Your task to perform on an android device: change text size in settings app Image 0: 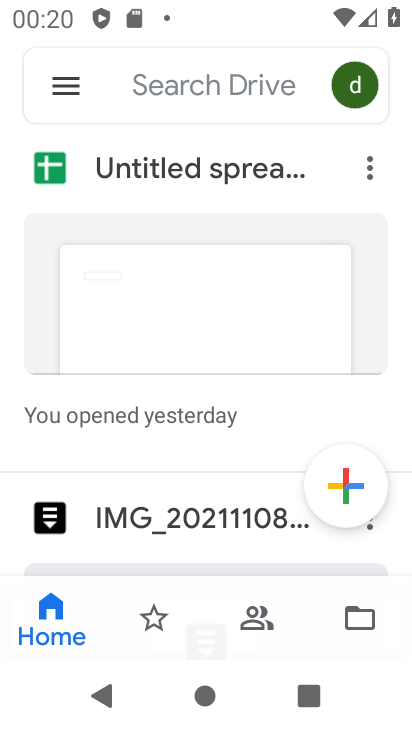
Step 0: press home button
Your task to perform on an android device: change text size in settings app Image 1: 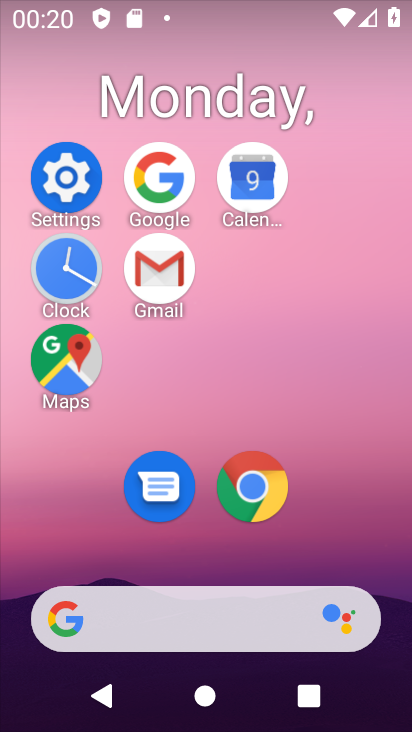
Step 1: click (71, 179)
Your task to perform on an android device: change text size in settings app Image 2: 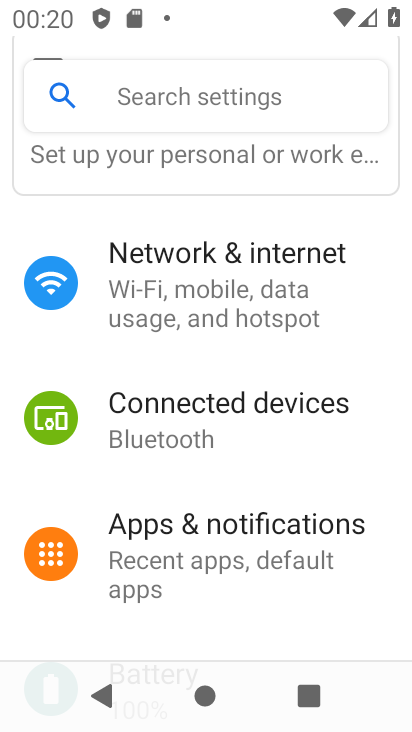
Step 2: drag from (266, 622) to (306, 263)
Your task to perform on an android device: change text size in settings app Image 3: 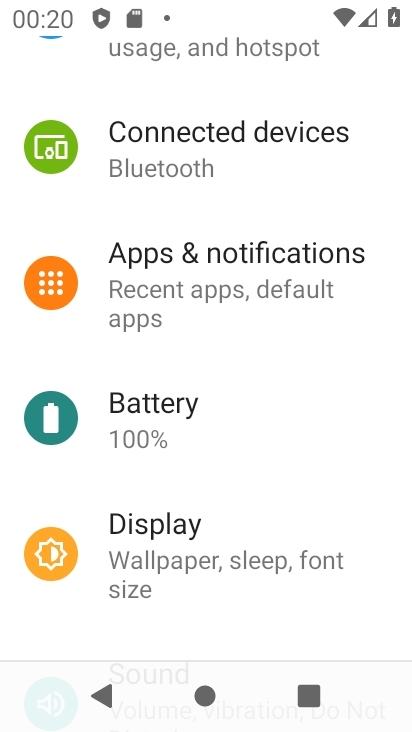
Step 3: click (277, 528)
Your task to perform on an android device: change text size in settings app Image 4: 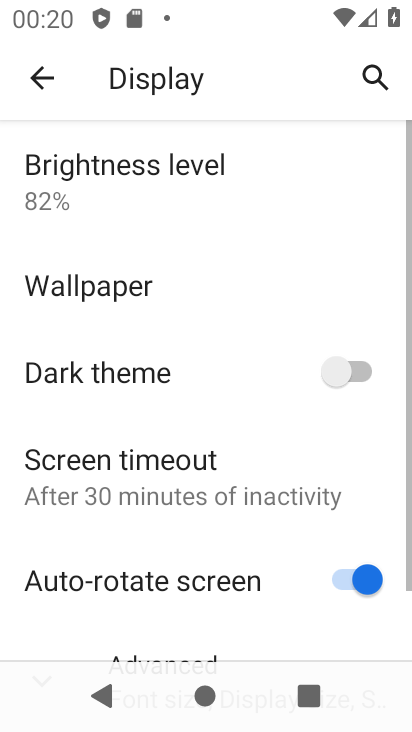
Step 4: drag from (277, 527) to (275, 129)
Your task to perform on an android device: change text size in settings app Image 5: 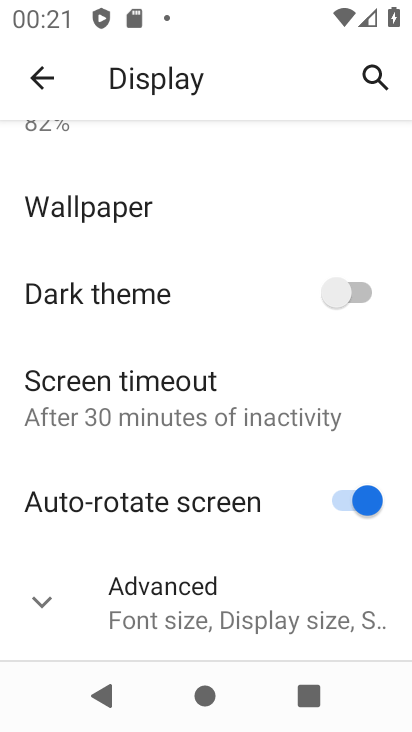
Step 5: click (211, 615)
Your task to perform on an android device: change text size in settings app Image 6: 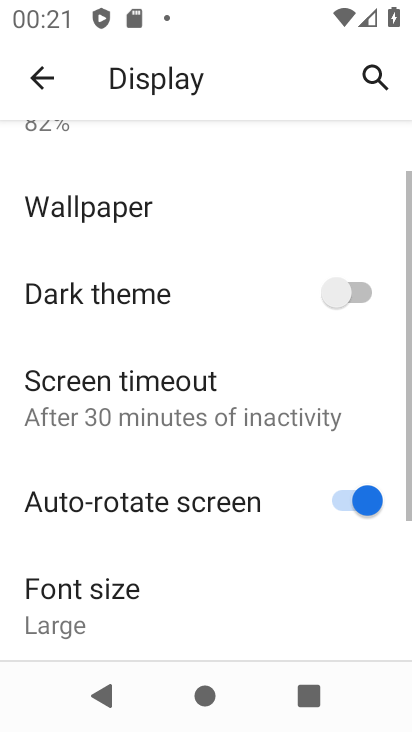
Step 6: drag from (211, 615) to (210, 180)
Your task to perform on an android device: change text size in settings app Image 7: 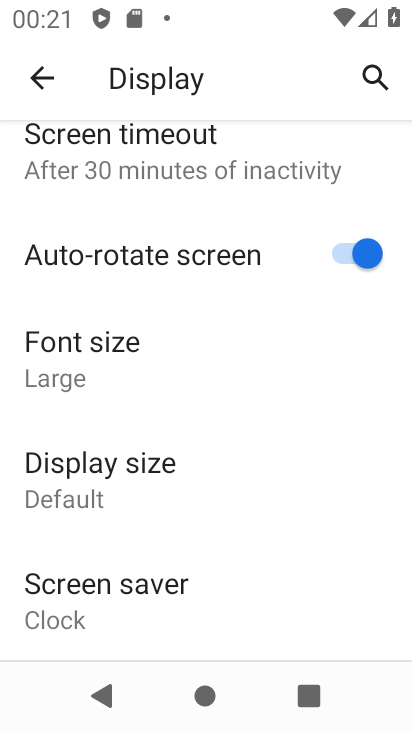
Step 7: click (141, 369)
Your task to perform on an android device: change text size in settings app Image 8: 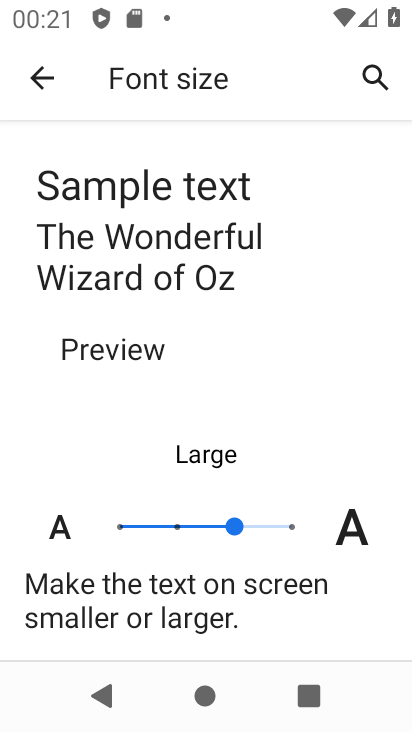
Step 8: click (175, 533)
Your task to perform on an android device: change text size in settings app Image 9: 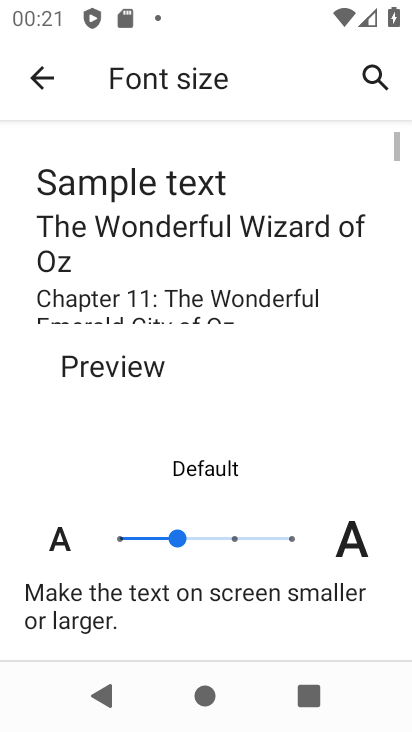
Step 9: task complete